Your task to perform on an android device: Open internet settings Image 0: 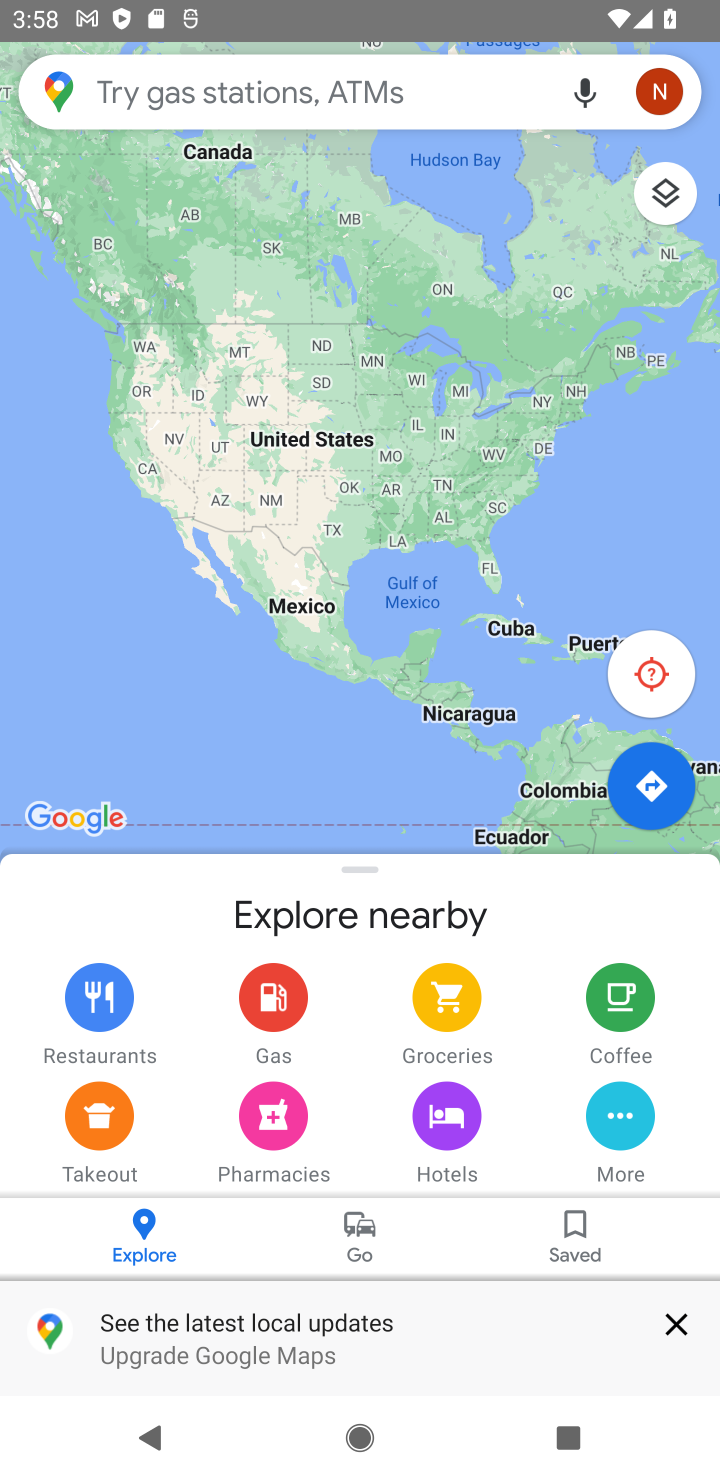
Step 0: drag from (347, 1146) to (395, 539)
Your task to perform on an android device: Open internet settings Image 1: 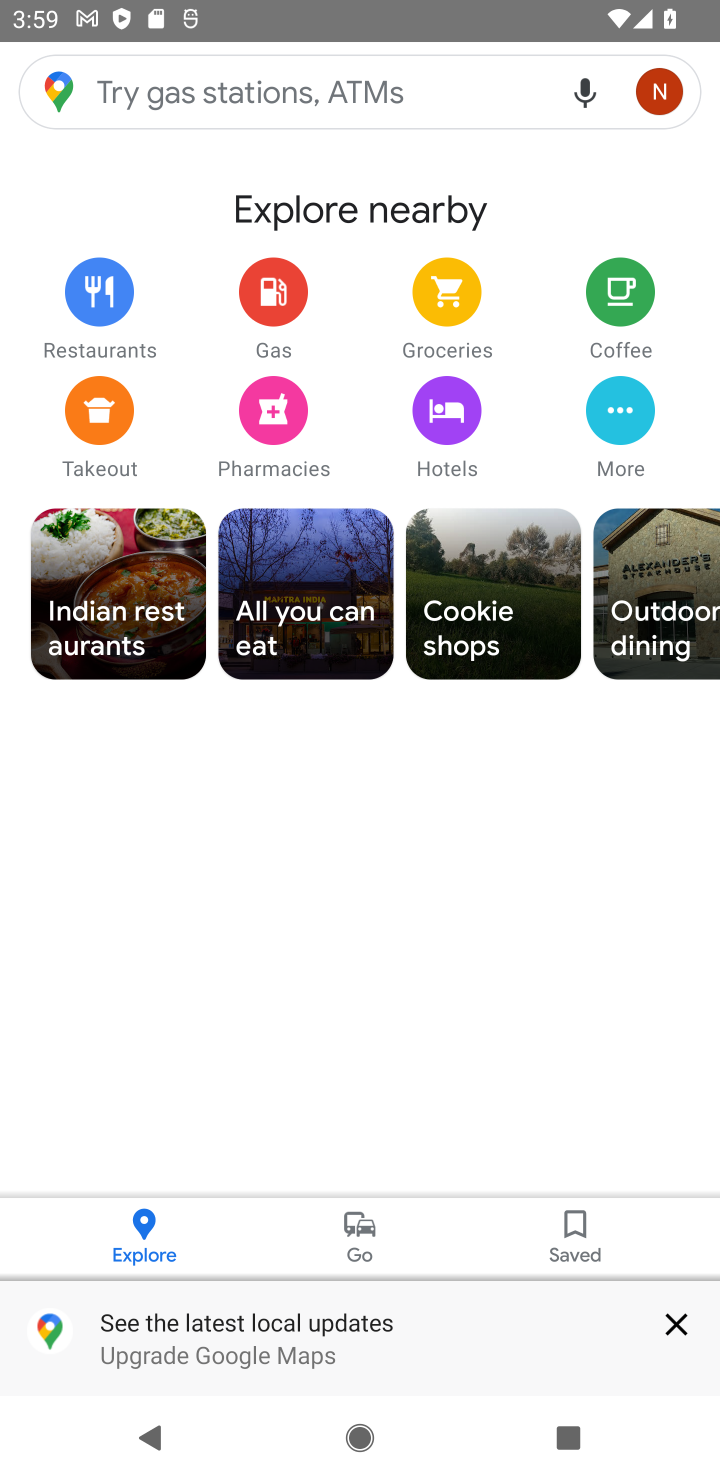
Step 1: click (670, 1322)
Your task to perform on an android device: Open internet settings Image 2: 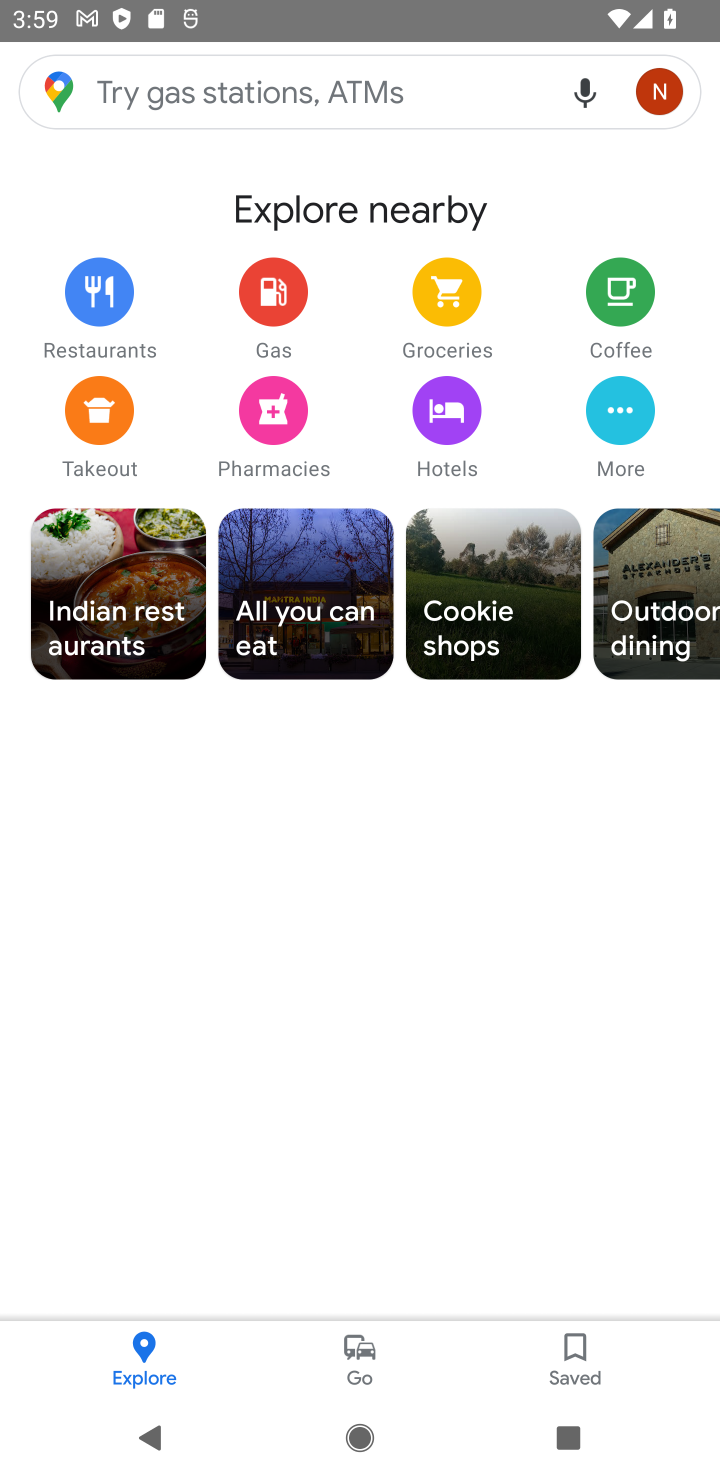
Step 2: drag from (374, 404) to (507, 1100)
Your task to perform on an android device: Open internet settings Image 3: 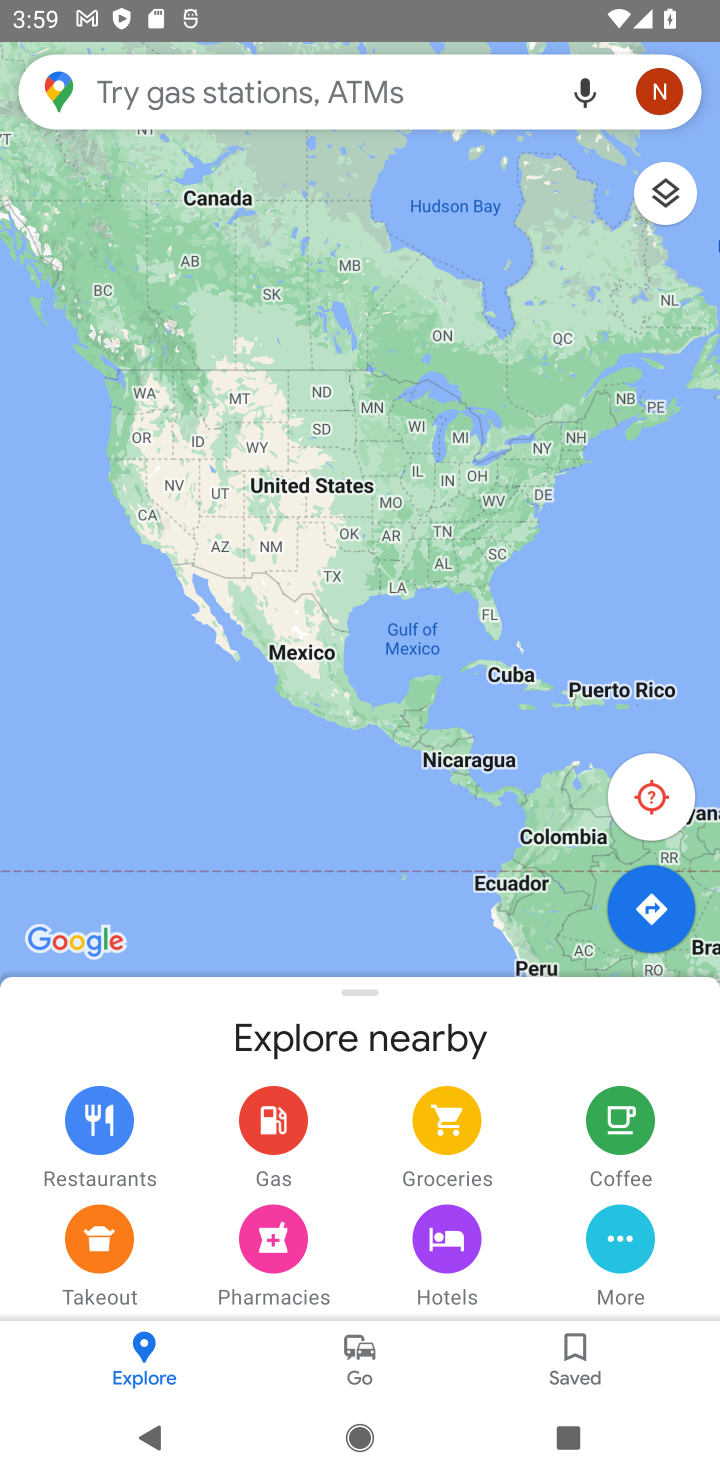
Step 3: press home button
Your task to perform on an android device: Open internet settings Image 4: 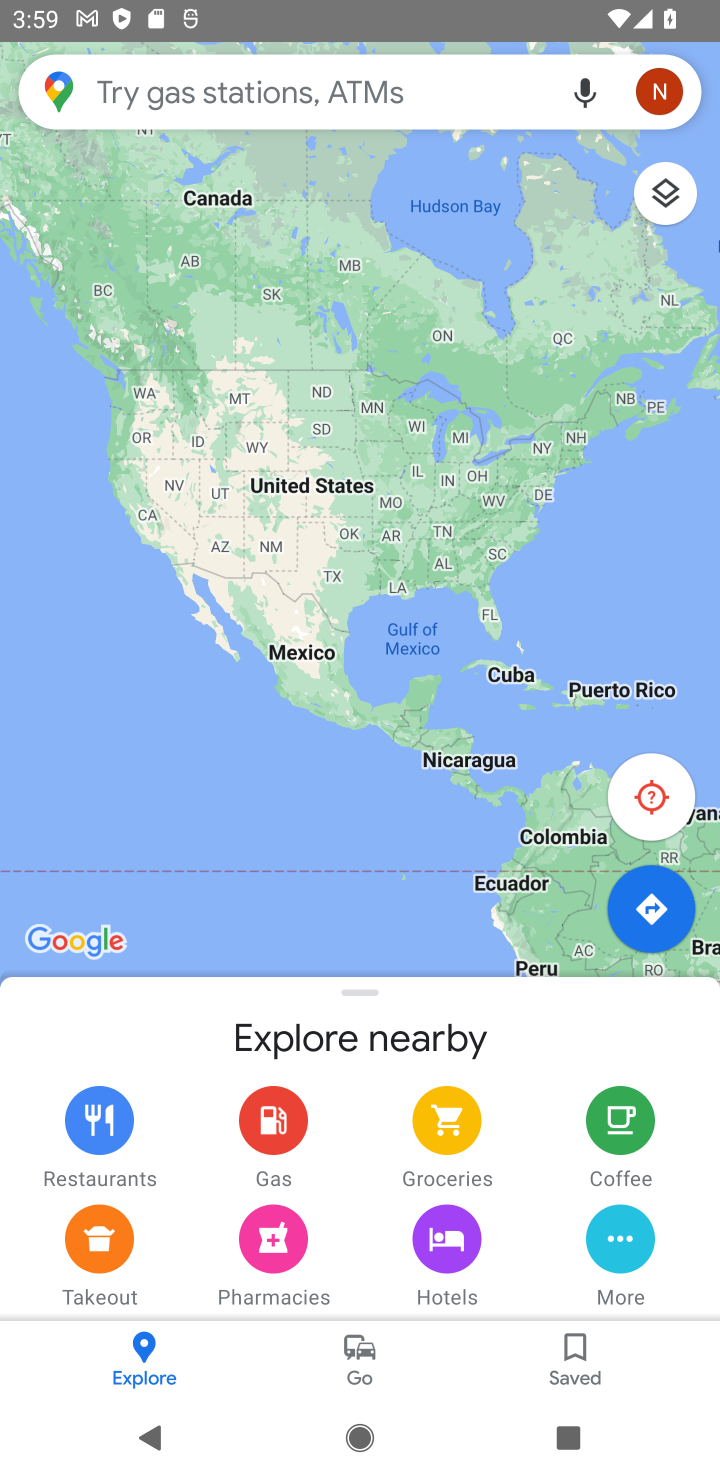
Step 4: drag from (280, 880) to (232, 442)
Your task to perform on an android device: Open internet settings Image 5: 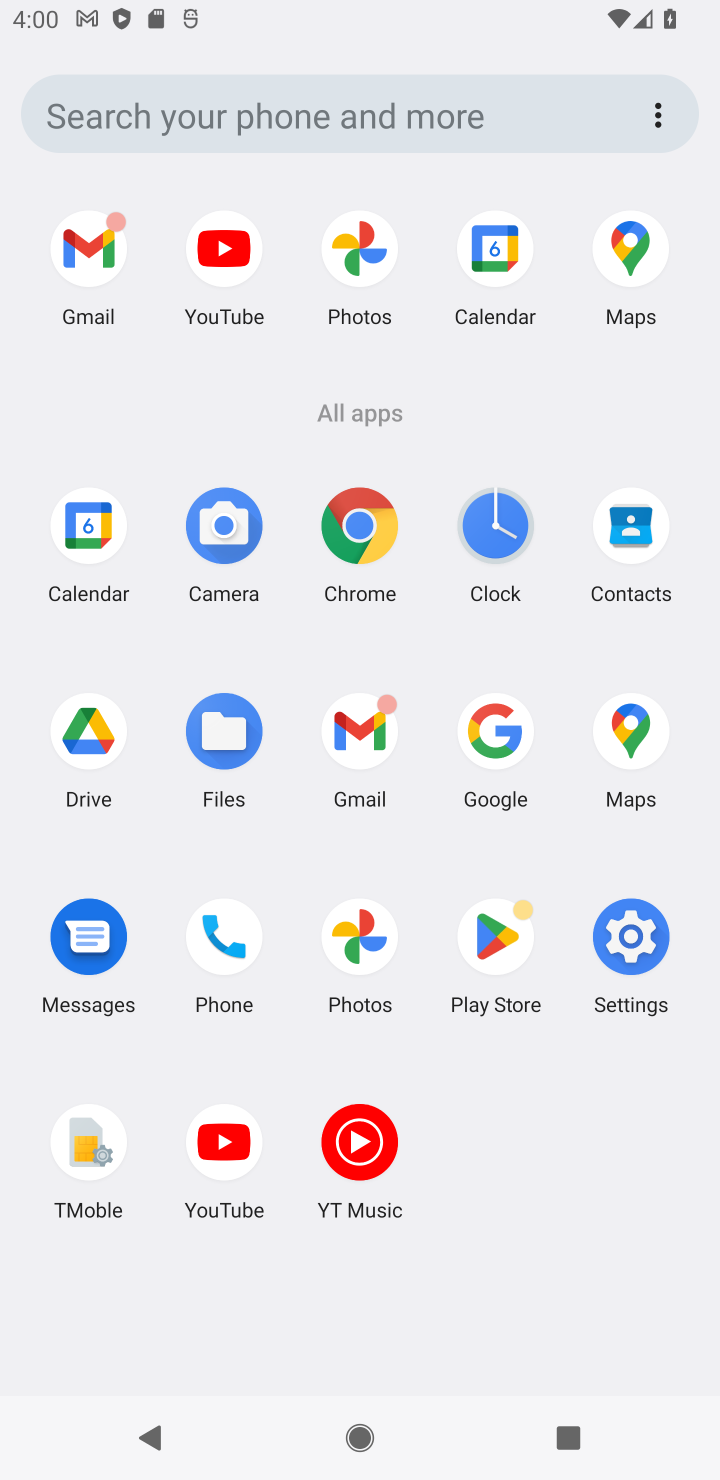
Step 5: click (636, 947)
Your task to perform on an android device: Open internet settings Image 6: 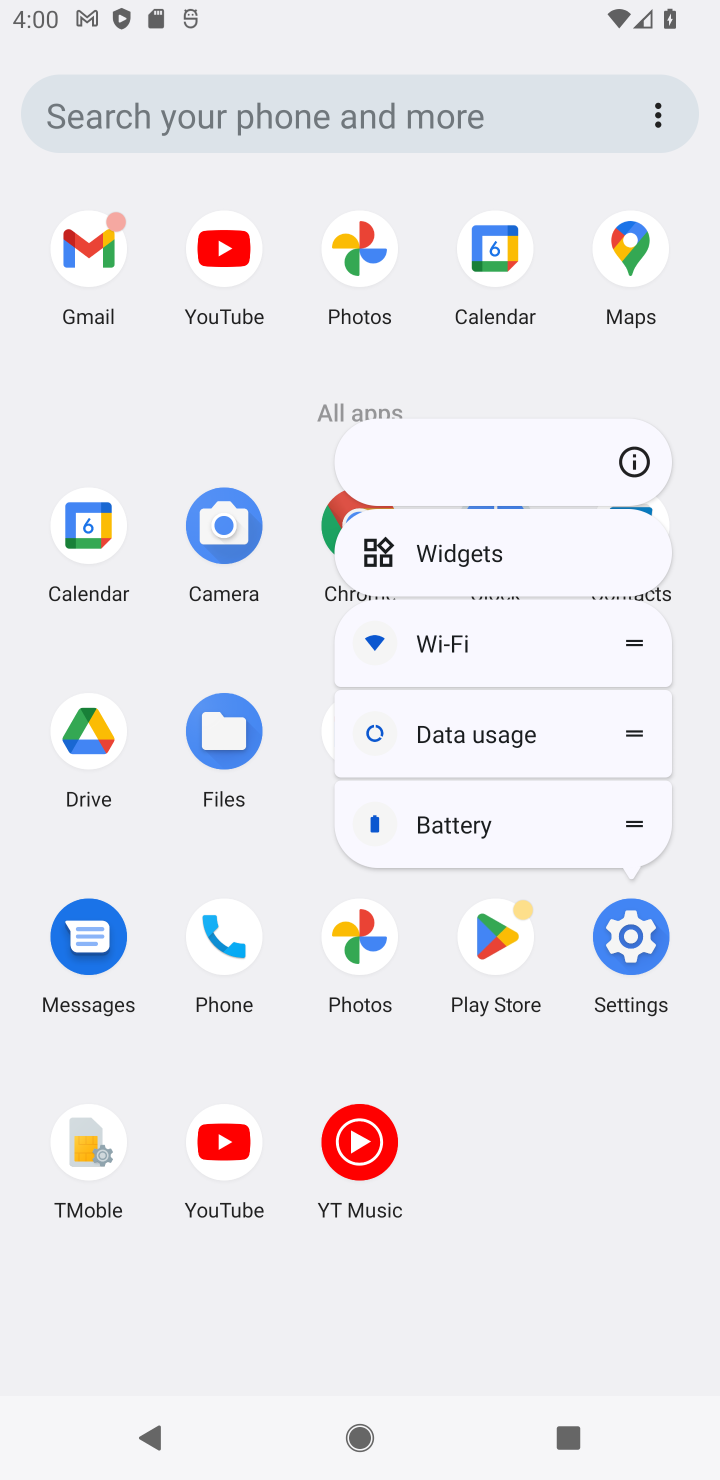
Step 6: click (630, 474)
Your task to perform on an android device: Open internet settings Image 7: 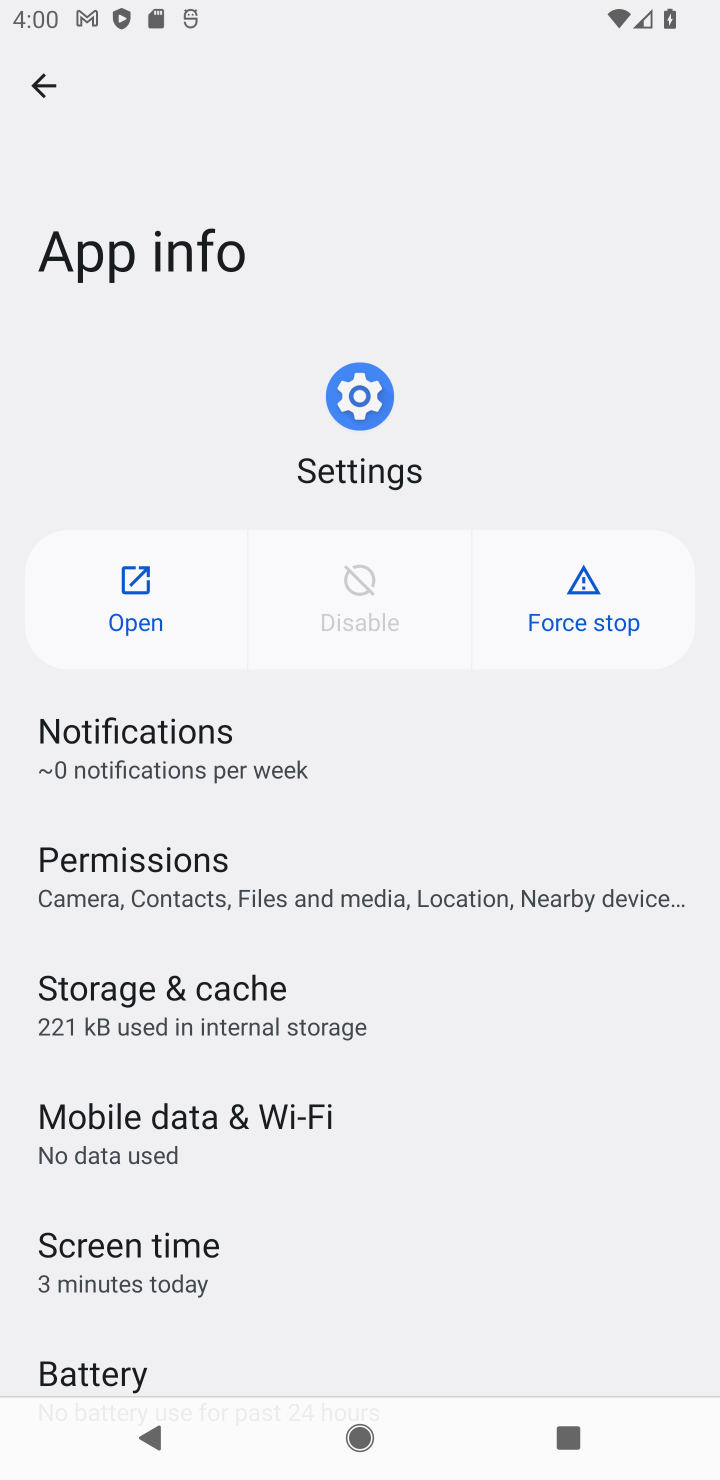
Step 7: click (145, 584)
Your task to perform on an android device: Open internet settings Image 8: 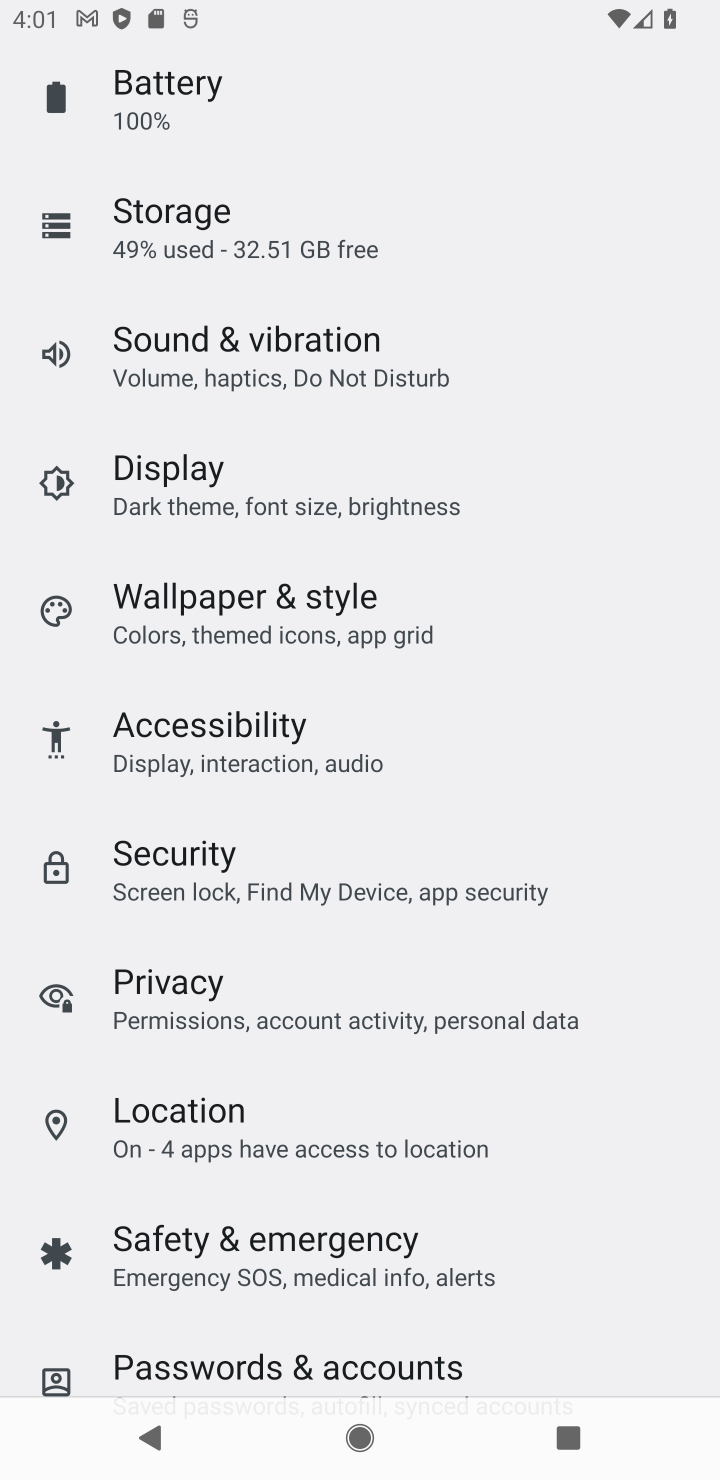
Step 8: drag from (249, 168) to (356, 1433)
Your task to perform on an android device: Open internet settings Image 9: 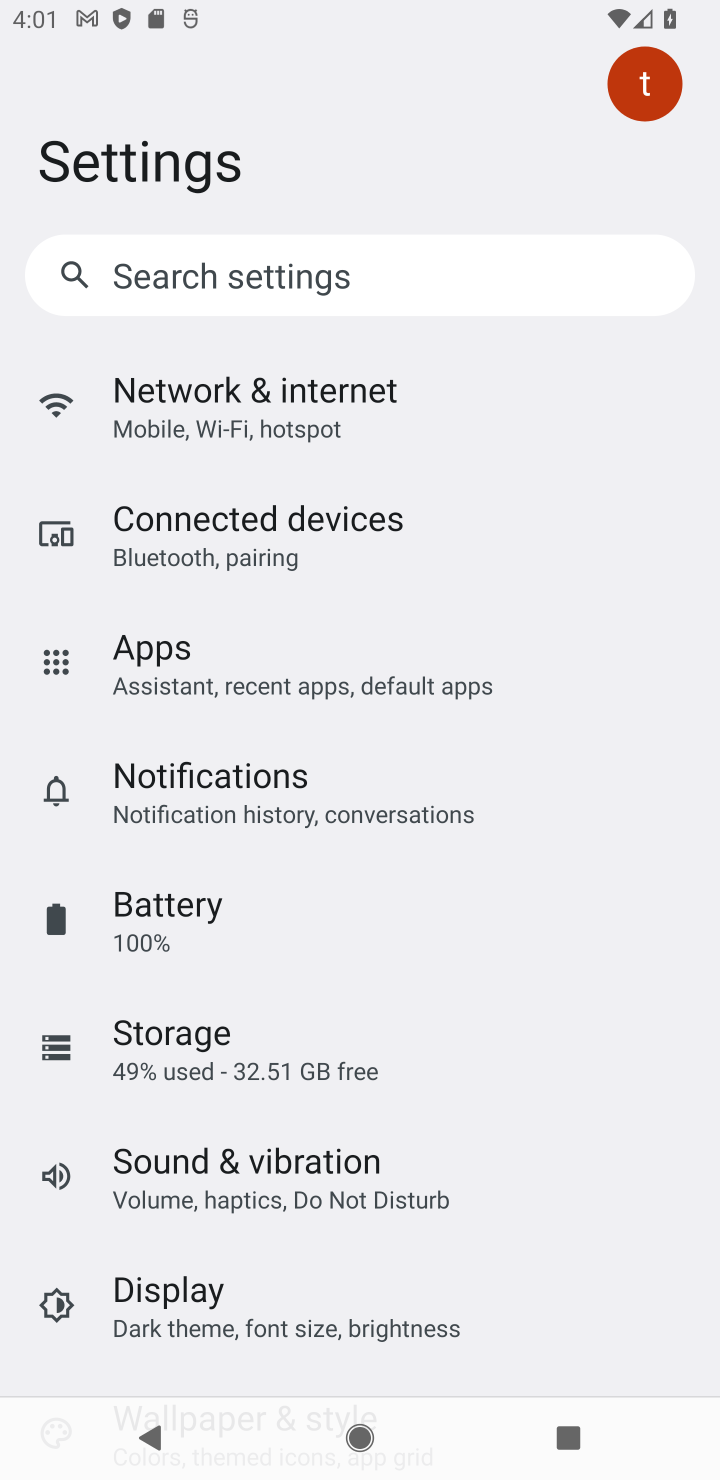
Step 9: click (235, 392)
Your task to perform on an android device: Open internet settings Image 10: 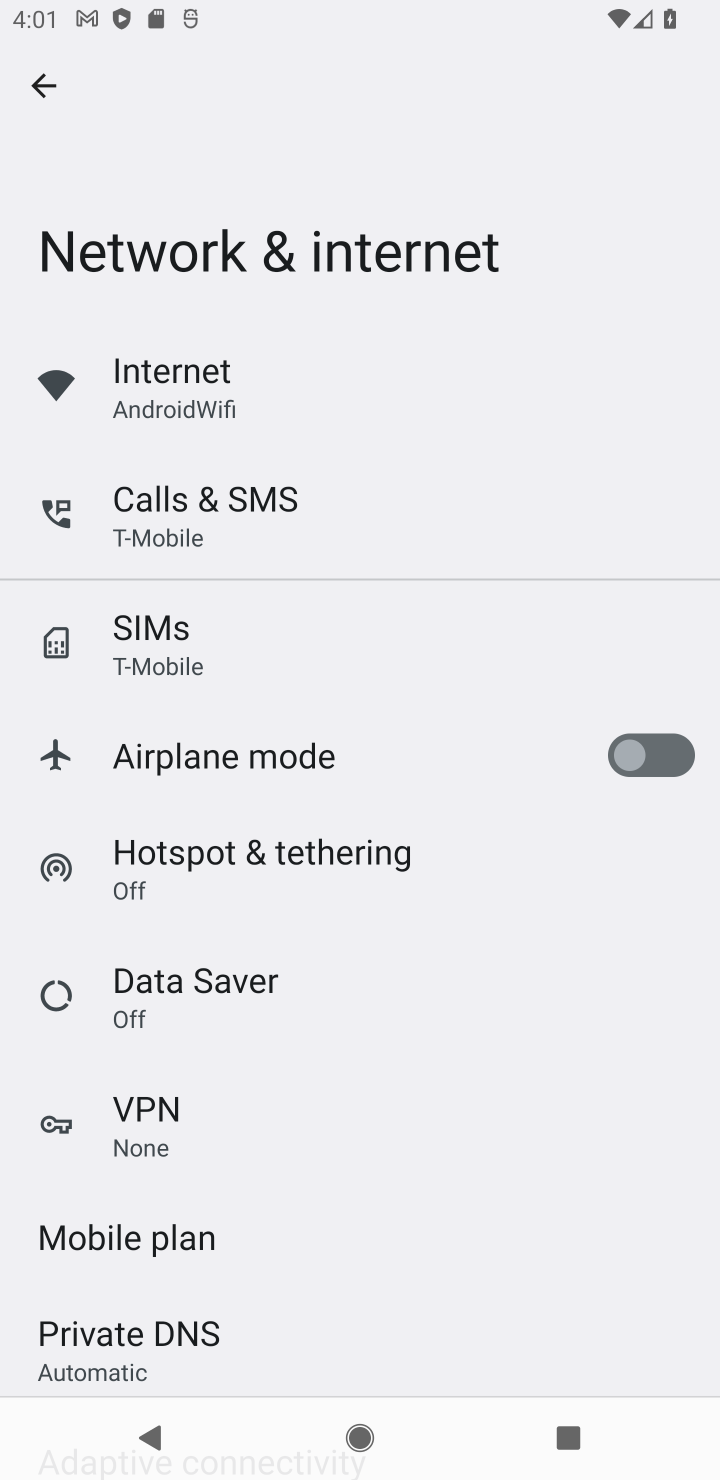
Step 10: click (164, 385)
Your task to perform on an android device: Open internet settings Image 11: 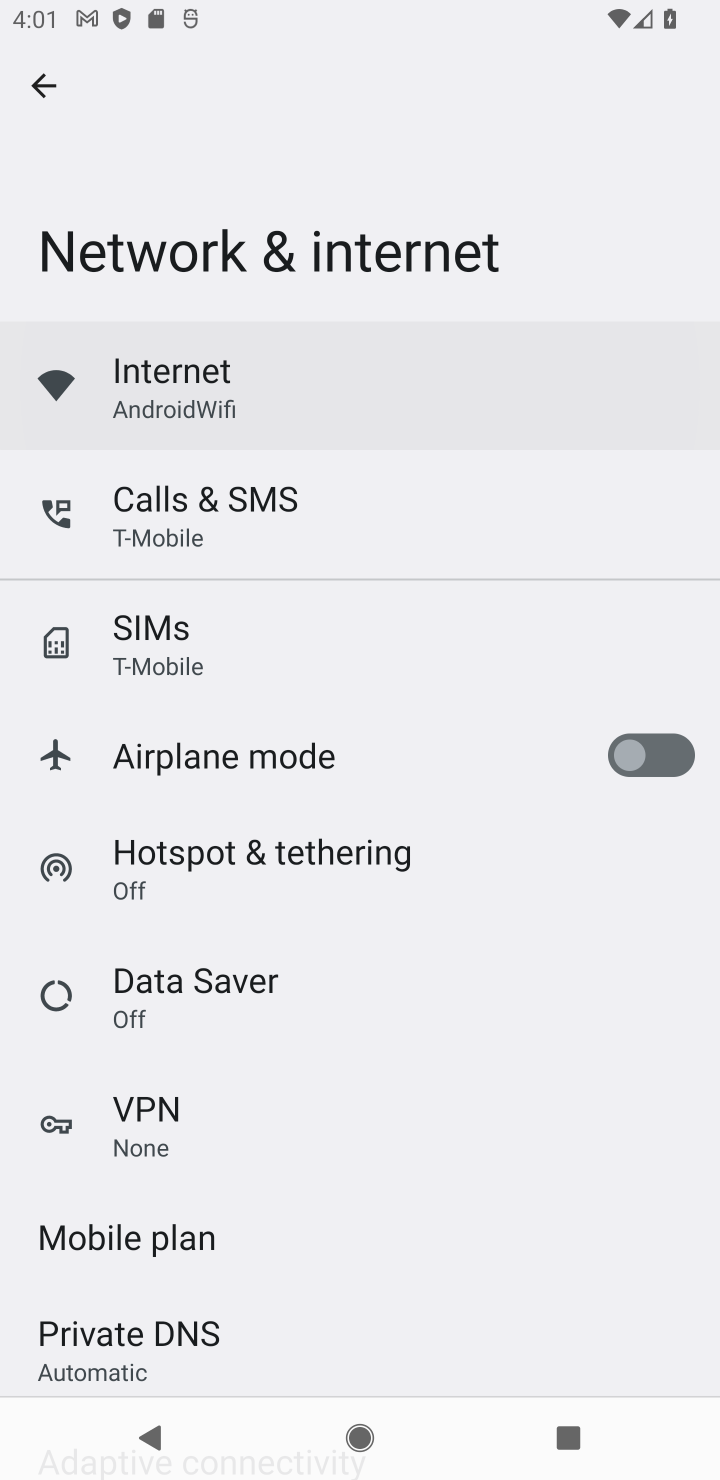
Step 11: task complete